Your task to perform on an android device: turn off location Image 0: 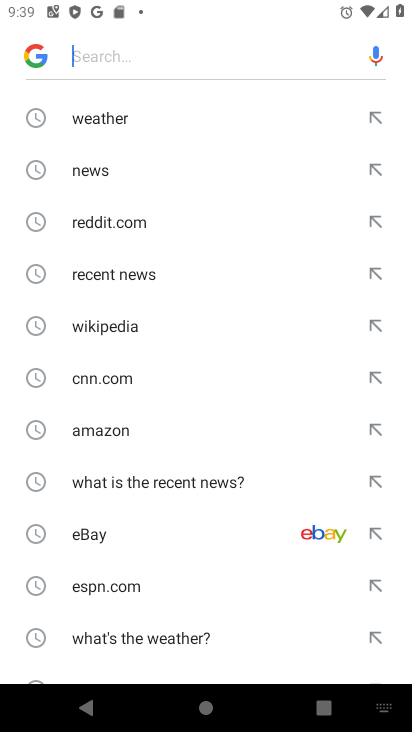
Step 0: press home button
Your task to perform on an android device: turn off location Image 1: 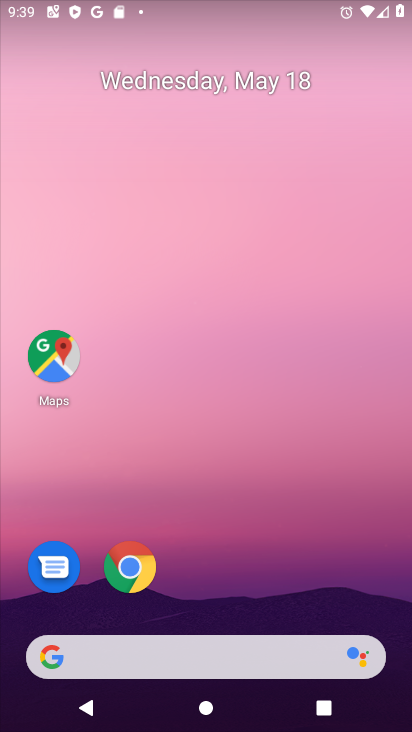
Step 1: drag from (223, 629) to (246, 192)
Your task to perform on an android device: turn off location Image 2: 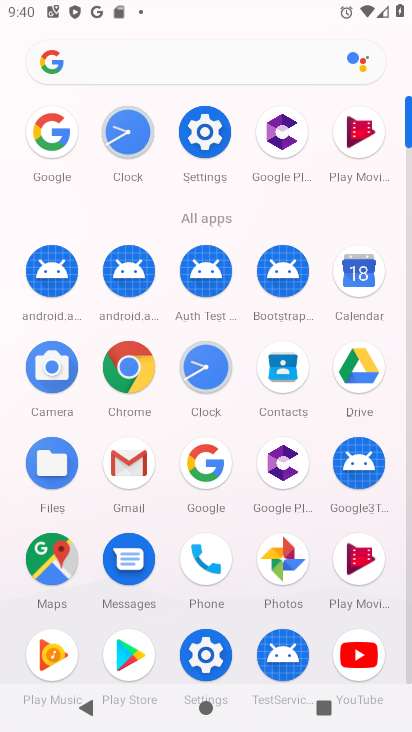
Step 2: click (210, 147)
Your task to perform on an android device: turn off location Image 3: 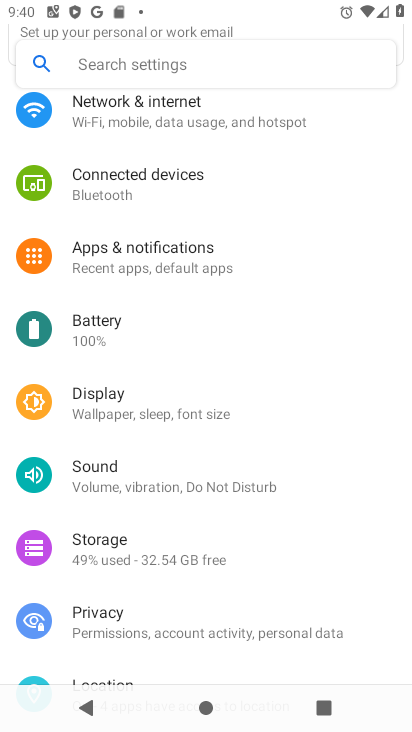
Step 3: drag from (98, 486) to (83, 9)
Your task to perform on an android device: turn off location Image 4: 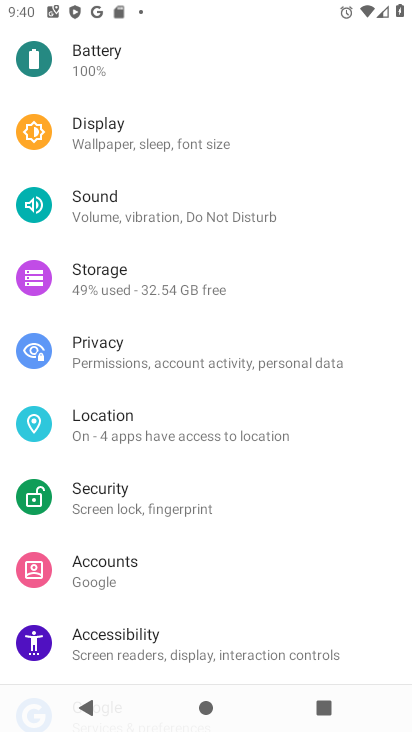
Step 4: click (152, 420)
Your task to perform on an android device: turn off location Image 5: 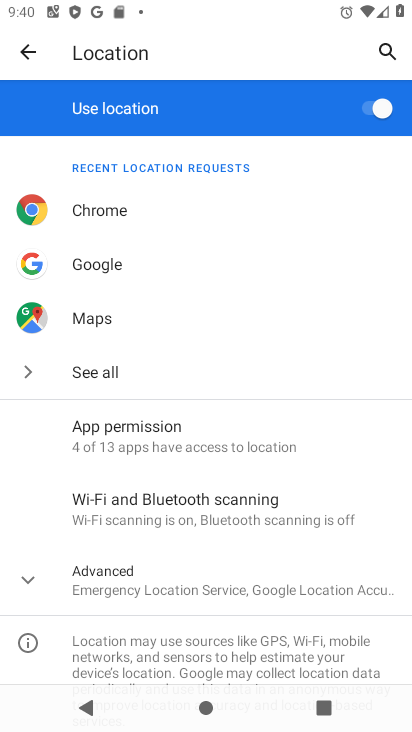
Step 5: click (380, 111)
Your task to perform on an android device: turn off location Image 6: 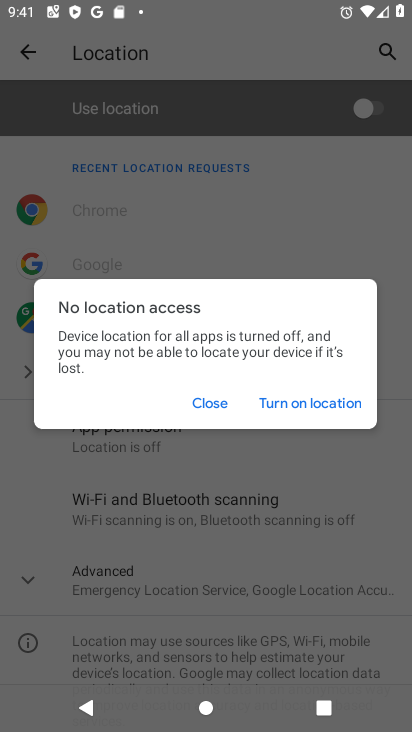
Step 6: click (217, 397)
Your task to perform on an android device: turn off location Image 7: 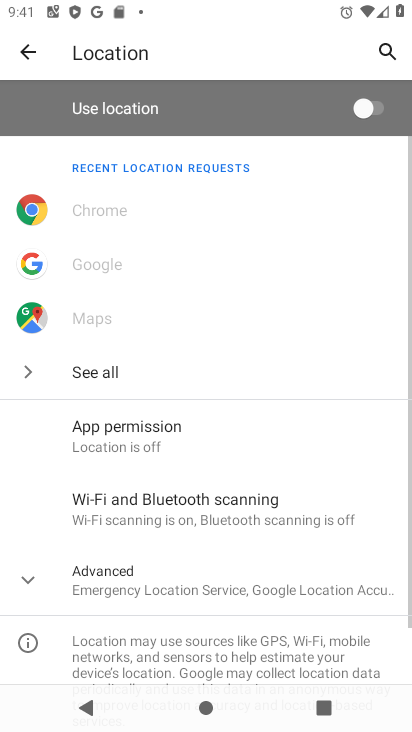
Step 7: task complete